Your task to perform on an android device: Do I have any events tomorrow? Image 0: 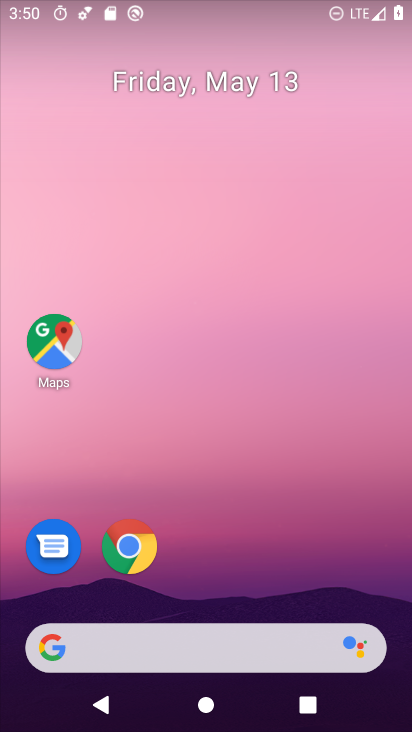
Step 0: drag from (259, 589) to (277, 354)
Your task to perform on an android device: Do I have any events tomorrow? Image 1: 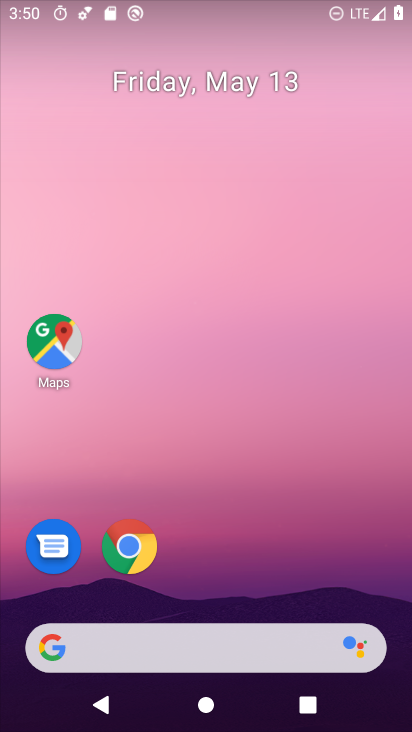
Step 1: click (311, 254)
Your task to perform on an android device: Do I have any events tomorrow? Image 2: 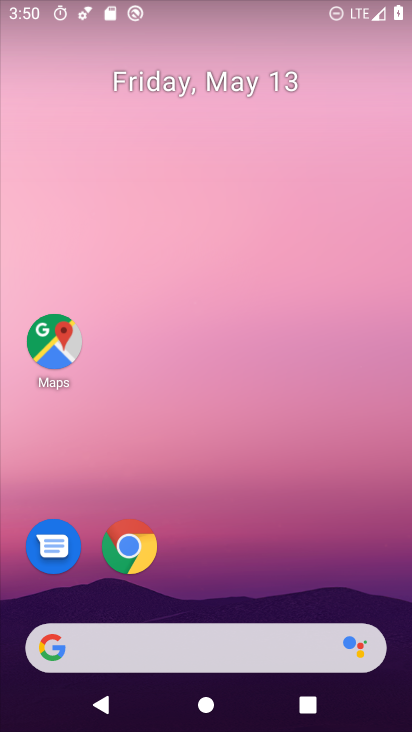
Step 2: drag from (263, 579) to (319, 197)
Your task to perform on an android device: Do I have any events tomorrow? Image 3: 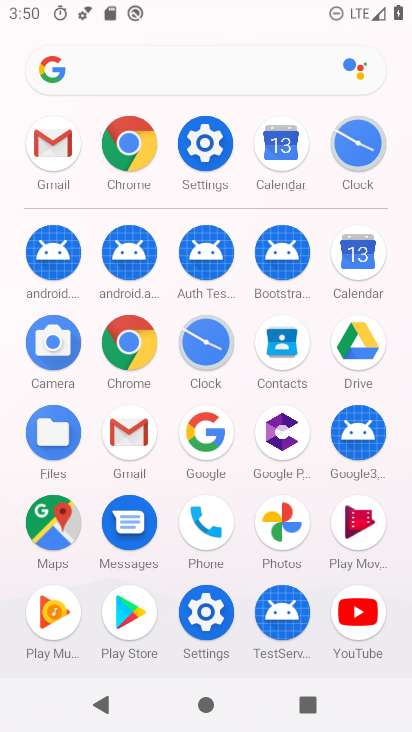
Step 3: click (365, 267)
Your task to perform on an android device: Do I have any events tomorrow? Image 4: 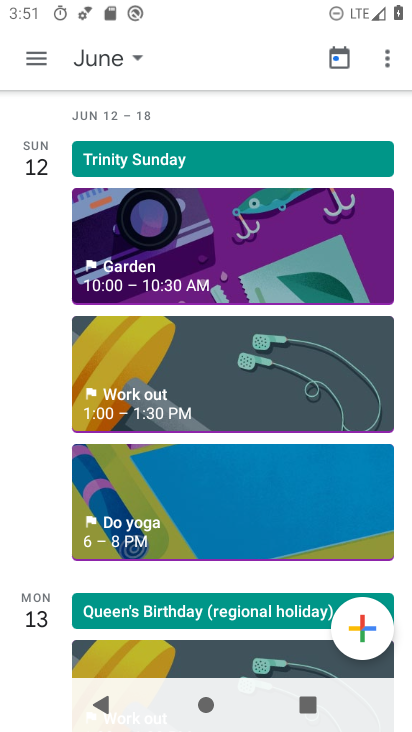
Step 4: task complete